Your task to perform on an android device: Open the Play Movies app and select the watchlist tab. Image 0: 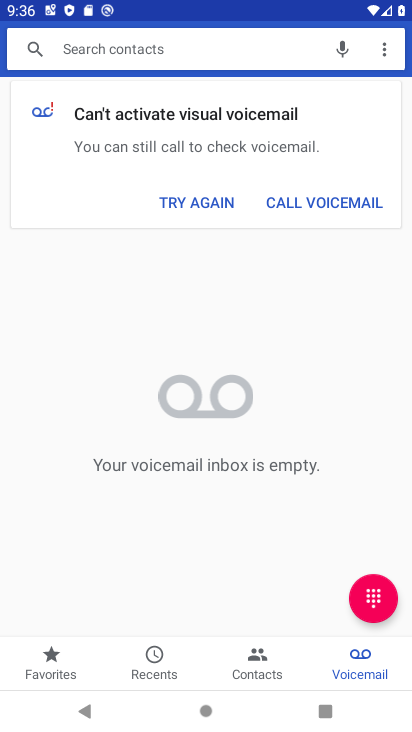
Step 0: press home button
Your task to perform on an android device: Open the Play Movies app and select the watchlist tab. Image 1: 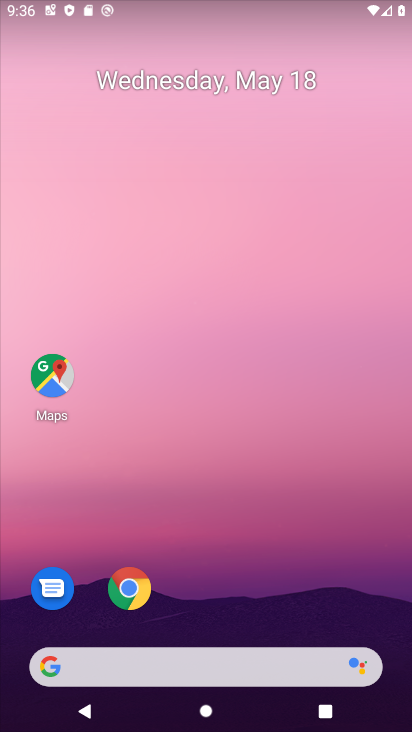
Step 1: drag from (283, 681) to (256, 251)
Your task to perform on an android device: Open the Play Movies app and select the watchlist tab. Image 2: 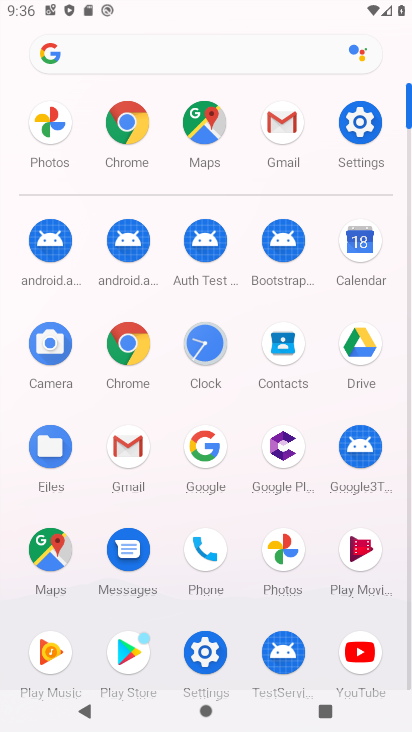
Step 2: click (356, 541)
Your task to perform on an android device: Open the Play Movies app and select the watchlist tab. Image 3: 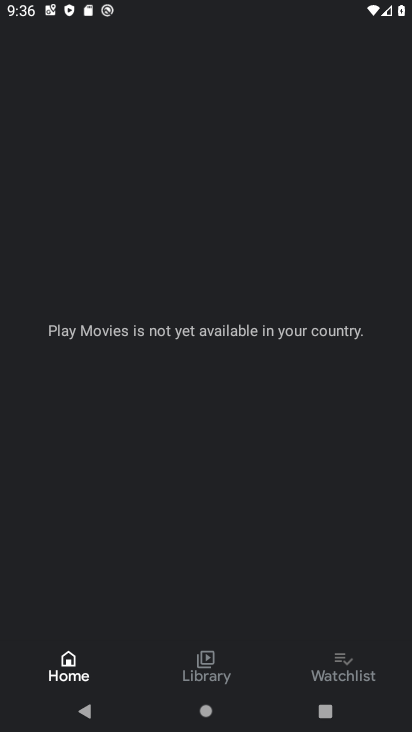
Step 3: click (361, 674)
Your task to perform on an android device: Open the Play Movies app and select the watchlist tab. Image 4: 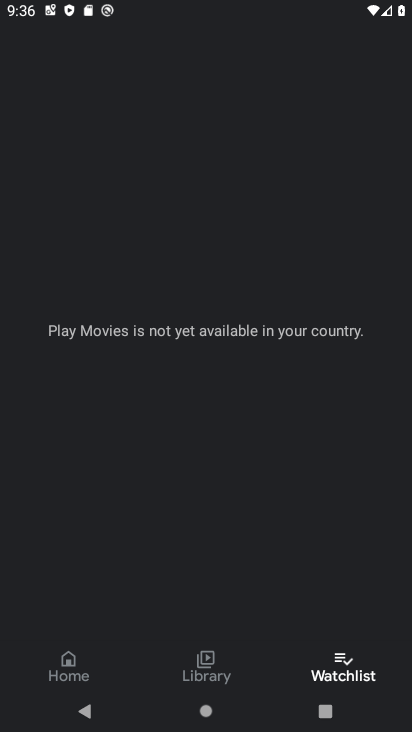
Step 4: task complete